Your task to perform on an android device: add a contact Image 0: 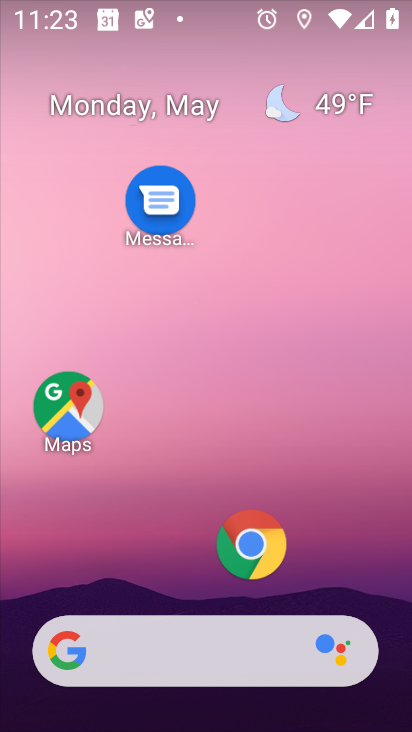
Step 0: drag from (354, 560) to (312, 22)
Your task to perform on an android device: add a contact Image 1: 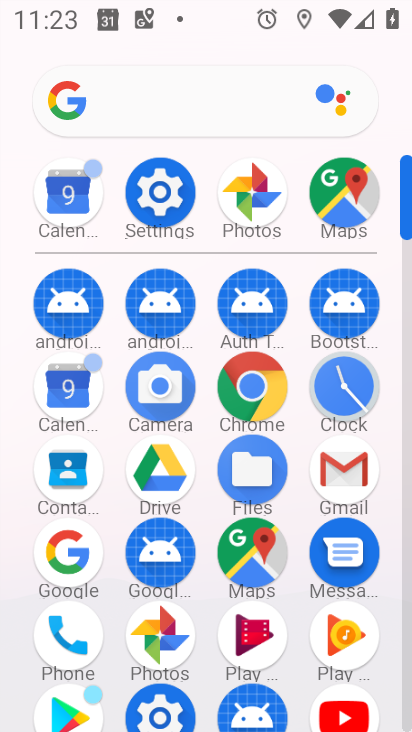
Step 1: click (63, 482)
Your task to perform on an android device: add a contact Image 2: 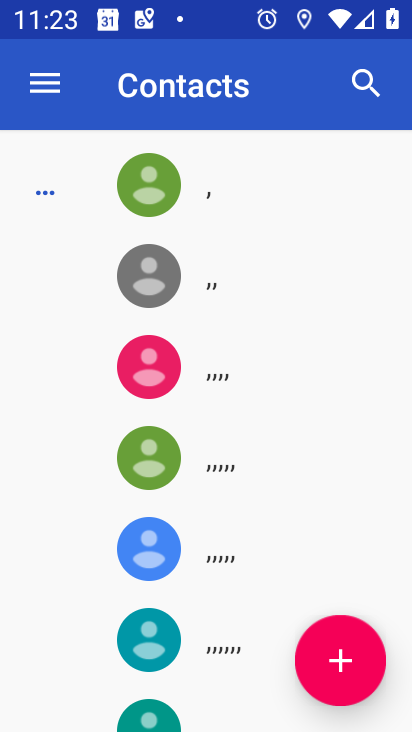
Step 2: click (354, 663)
Your task to perform on an android device: add a contact Image 3: 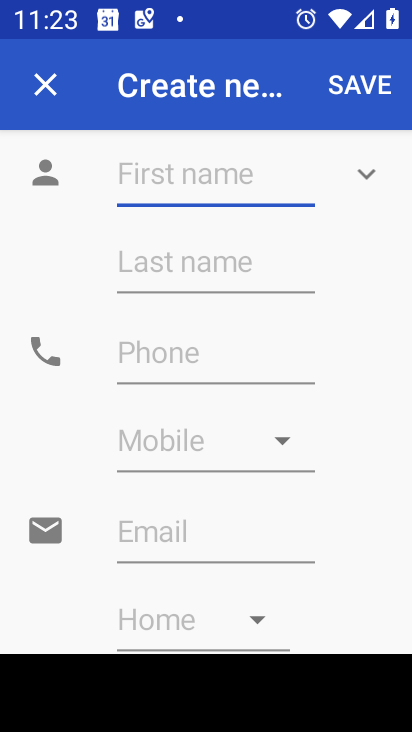
Step 3: type "nkjmnlkn"
Your task to perform on an android device: add a contact Image 4: 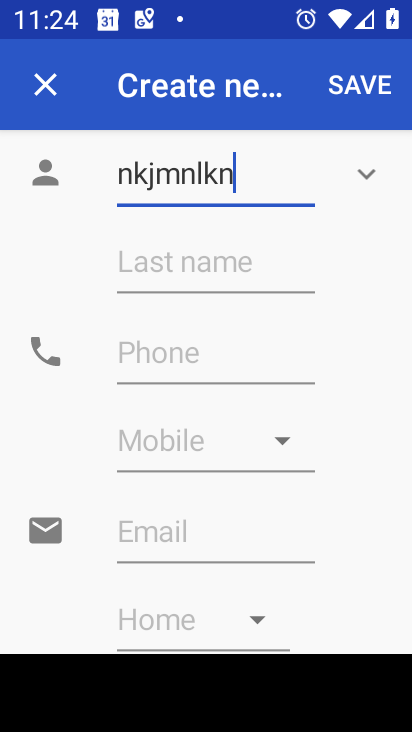
Step 4: click (153, 375)
Your task to perform on an android device: add a contact Image 5: 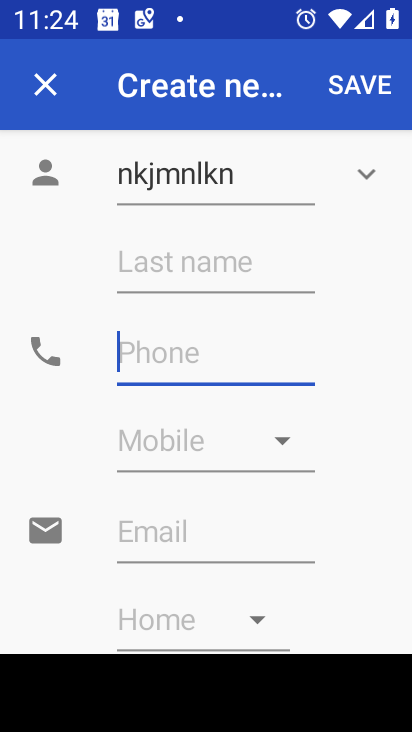
Step 5: type "5676879897877"
Your task to perform on an android device: add a contact Image 6: 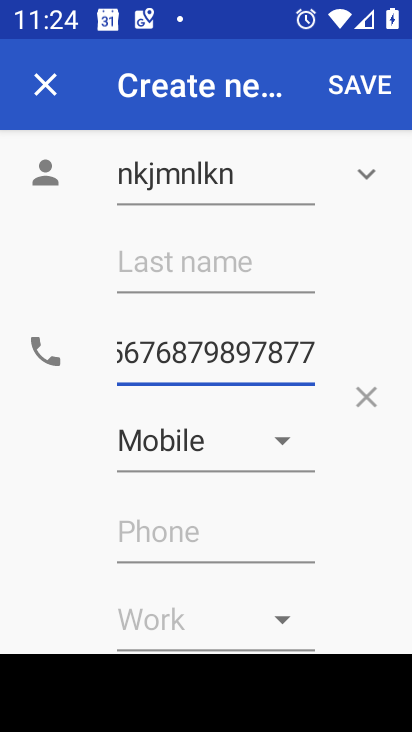
Step 6: click (361, 92)
Your task to perform on an android device: add a contact Image 7: 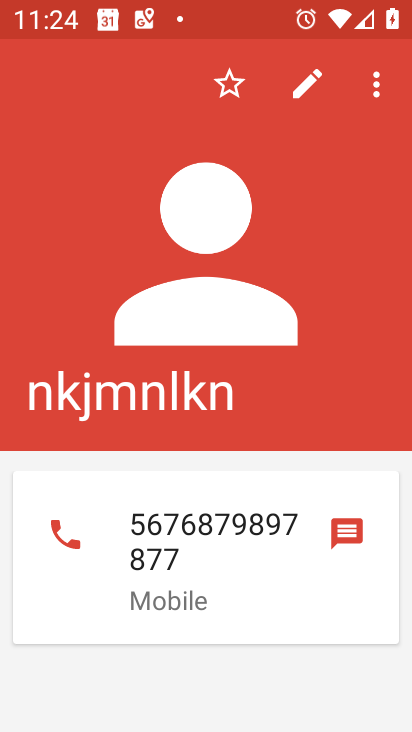
Step 7: task complete